Your task to perform on an android device: Go to Reddit.com Image 0: 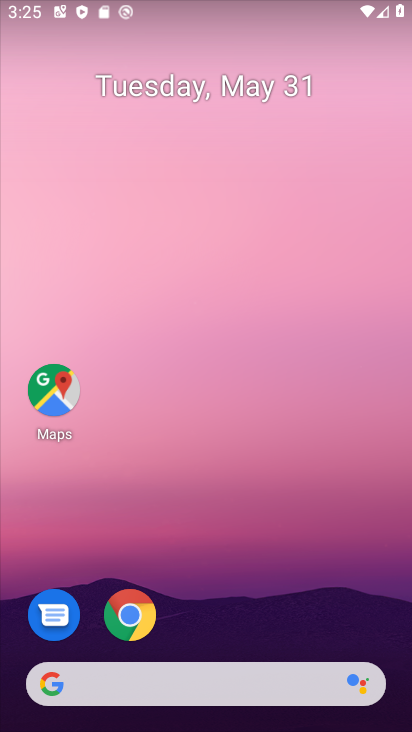
Step 0: drag from (274, 704) to (168, 131)
Your task to perform on an android device: Go to Reddit.com Image 1: 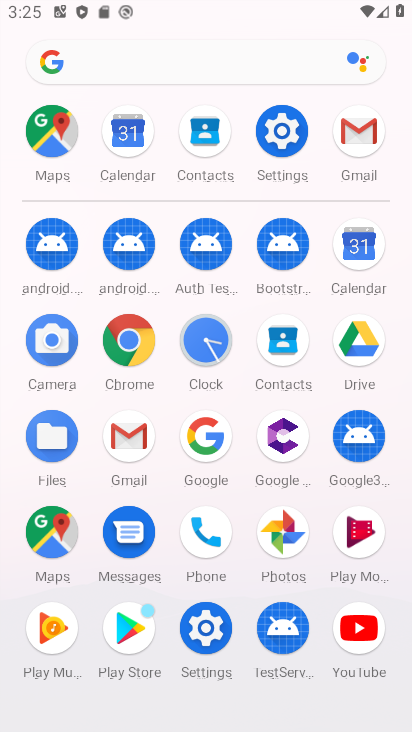
Step 1: click (124, 352)
Your task to perform on an android device: Go to Reddit.com Image 2: 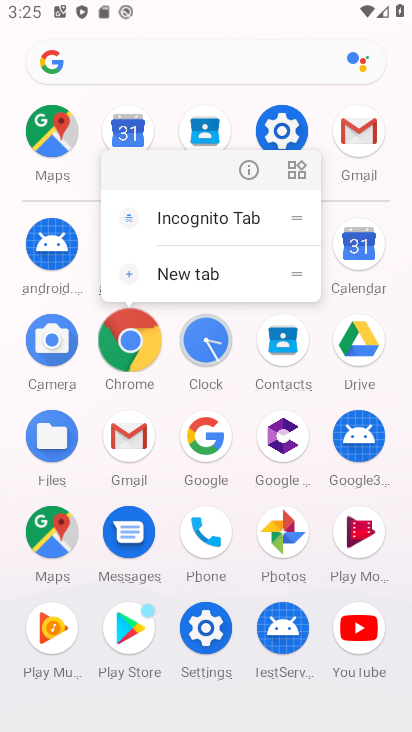
Step 2: click (124, 351)
Your task to perform on an android device: Go to Reddit.com Image 3: 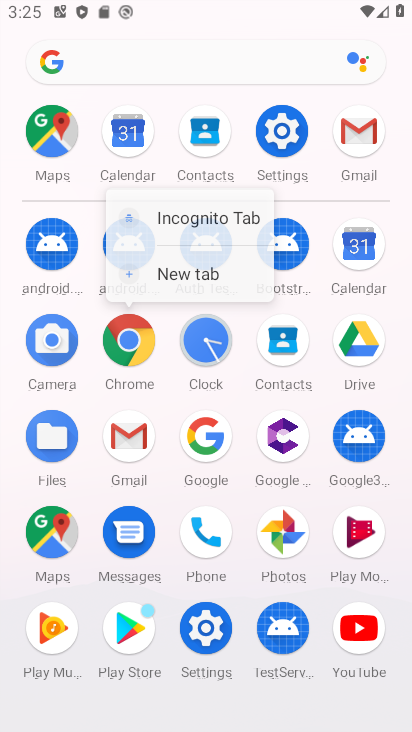
Step 3: click (133, 350)
Your task to perform on an android device: Go to Reddit.com Image 4: 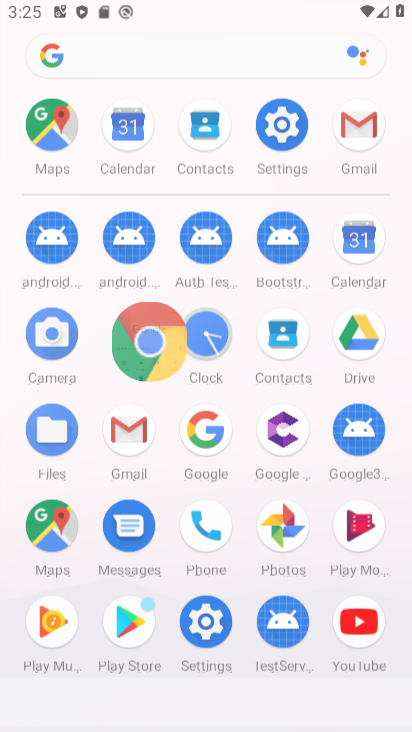
Step 4: click (133, 350)
Your task to perform on an android device: Go to Reddit.com Image 5: 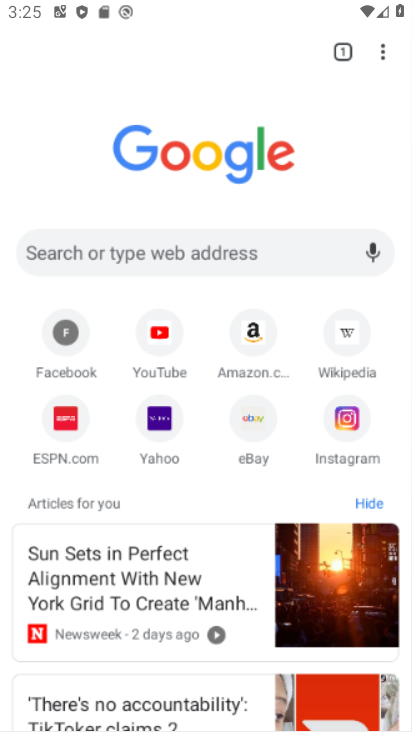
Step 5: click (133, 350)
Your task to perform on an android device: Go to Reddit.com Image 6: 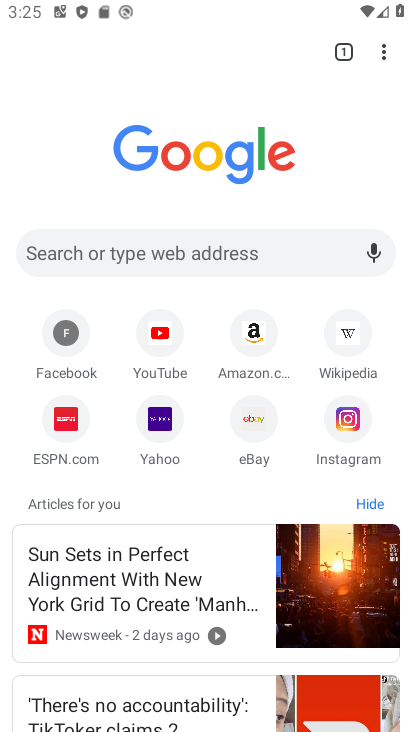
Step 6: click (40, 246)
Your task to perform on an android device: Go to Reddit.com Image 7: 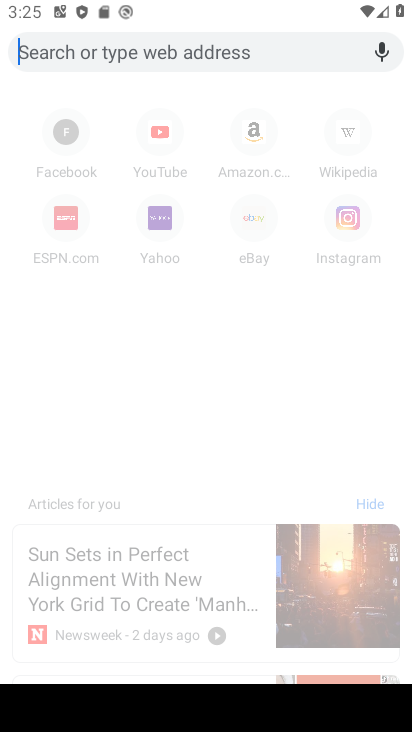
Step 7: type "reddit.com"
Your task to perform on an android device: Go to Reddit.com Image 8: 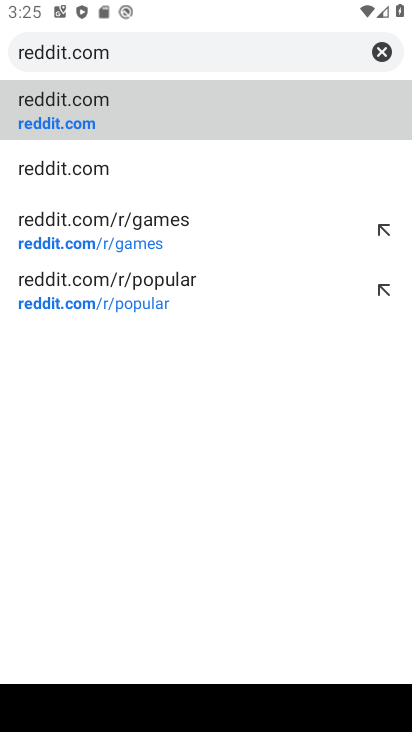
Step 8: click (42, 125)
Your task to perform on an android device: Go to Reddit.com Image 9: 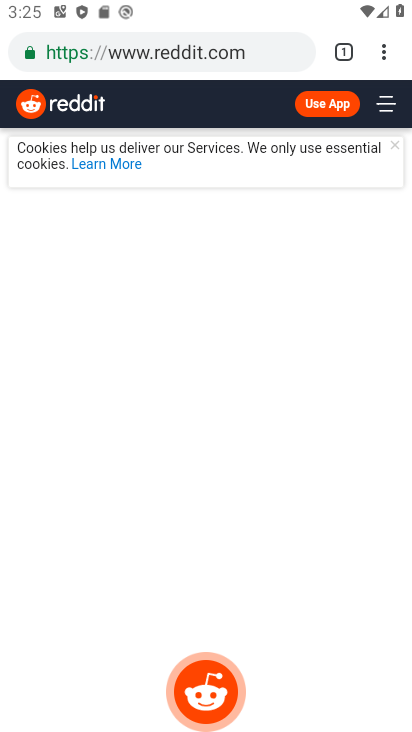
Step 9: task complete